Your task to perform on an android device: stop showing notifications on the lock screen Image 0: 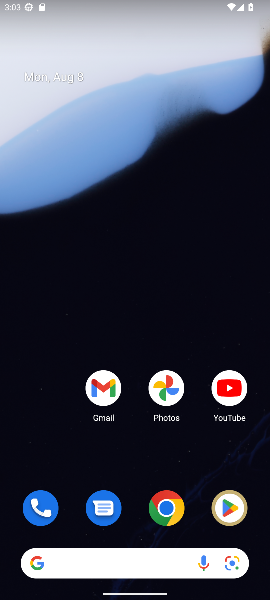
Step 0: drag from (133, 470) to (102, 100)
Your task to perform on an android device: stop showing notifications on the lock screen Image 1: 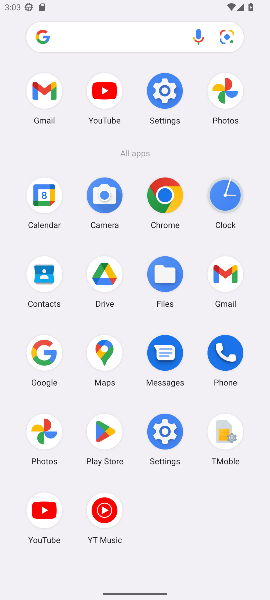
Step 1: click (165, 92)
Your task to perform on an android device: stop showing notifications on the lock screen Image 2: 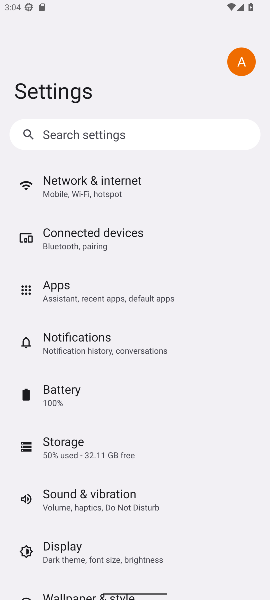
Step 2: click (95, 330)
Your task to perform on an android device: stop showing notifications on the lock screen Image 3: 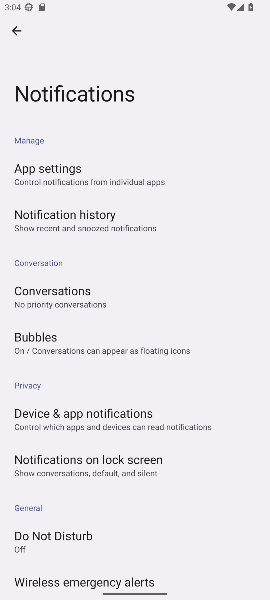
Step 3: click (93, 462)
Your task to perform on an android device: stop showing notifications on the lock screen Image 4: 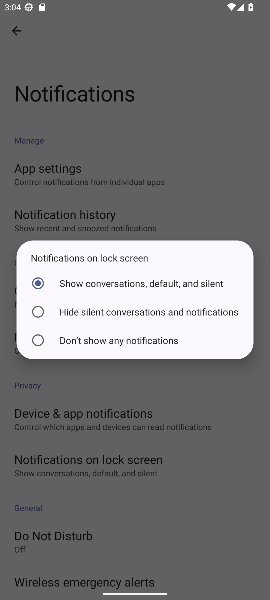
Step 4: click (34, 337)
Your task to perform on an android device: stop showing notifications on the lock screen Image 5: 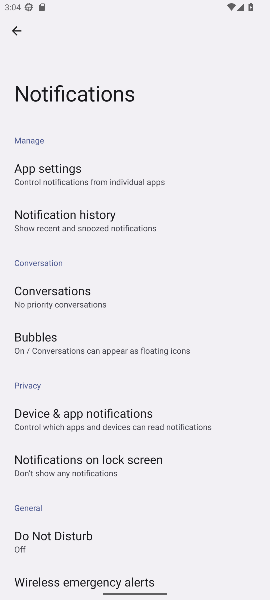
Step 5: task complete